Your task to perform on an android device: Search for seafood restaurants on Google Maps Image 0: 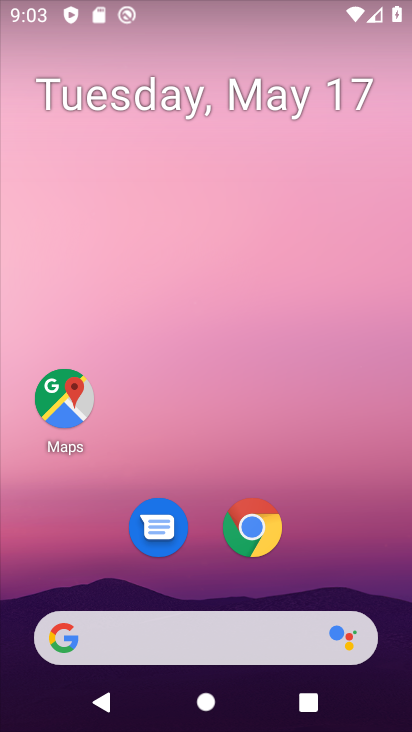
Step 0: drag from (162, 642) to (340, 75)
Your task to perform on an android device: Search for seafood restaurants on Google Maps Image 1: 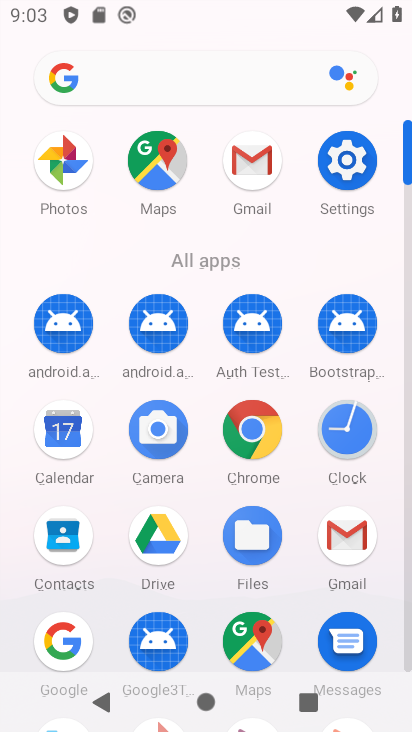
Step 1: click (152, 178)
Your task to perform on an android device: Search for seafood restaurants on Google Maps Image 2: 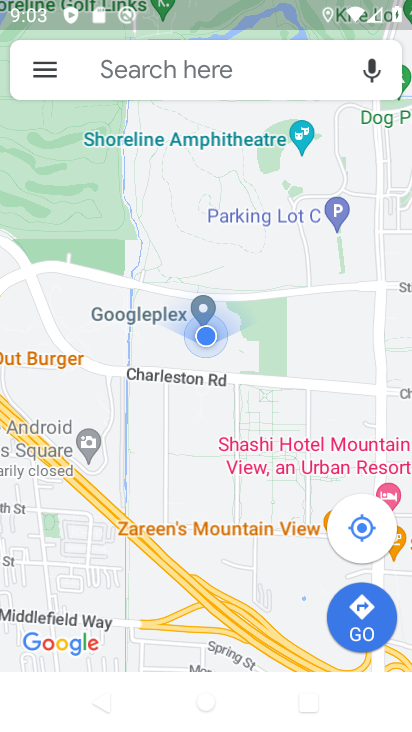
Step 2: click (272, 68)
Your task to perform on an android device: Search for seafood restaurants on Google Maps Image 3: 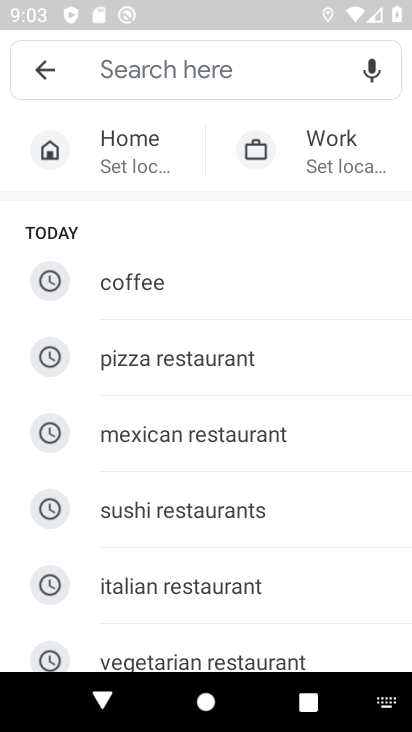
Step 3: drag from (300, 603) to (354, 340)
Your task to perform on an android device: Search for seafood restaurants on Google Maps Image 4: 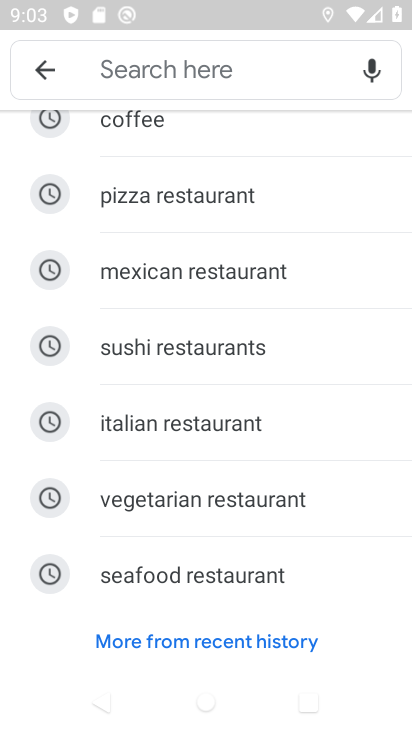
Step 4: click (197, 573)
Your task to perform on an android device: Search for seafood restaurants on Google Maps Image 5: 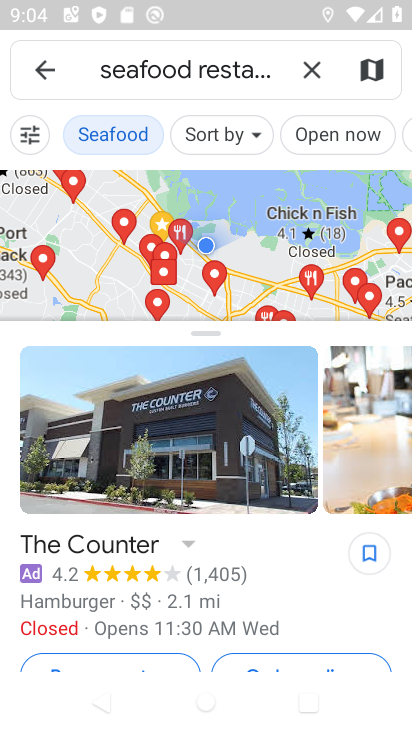
Step 5: task complete